Your task to perform on an android device: read, delete, or share a saved page in the chrome app Image 0: 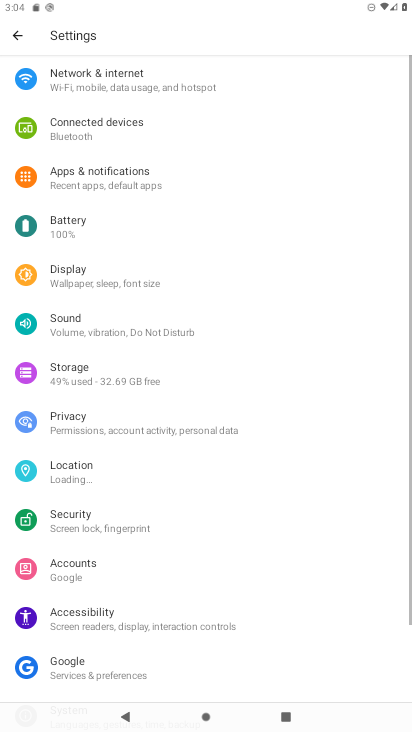
Step 0: press home button
Your task to perform on an android device: read, delete, or share a saved page in the chrome app Image 1: 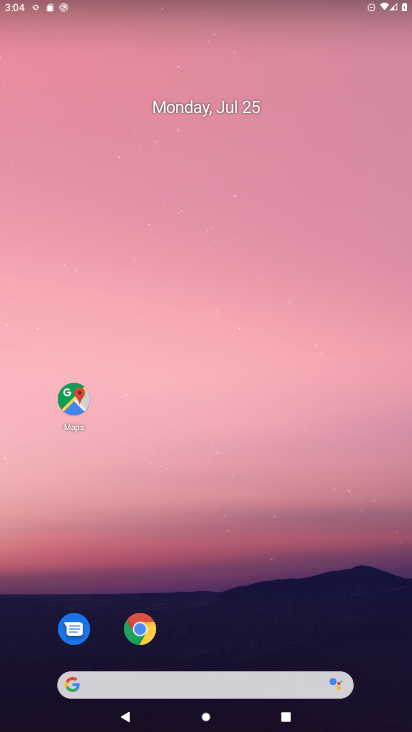
Step 1: click (140, 618)
Your task to perform on an android device: read, delete, or share a saved page in the chrome app Image 2: 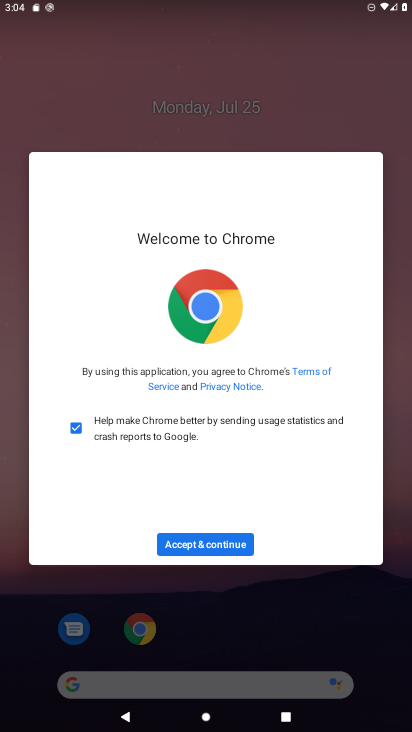
Step 2: click (190, 550)
Your task to perform on an android device: read, delete, or share a saved page in the chrome app Image 3: 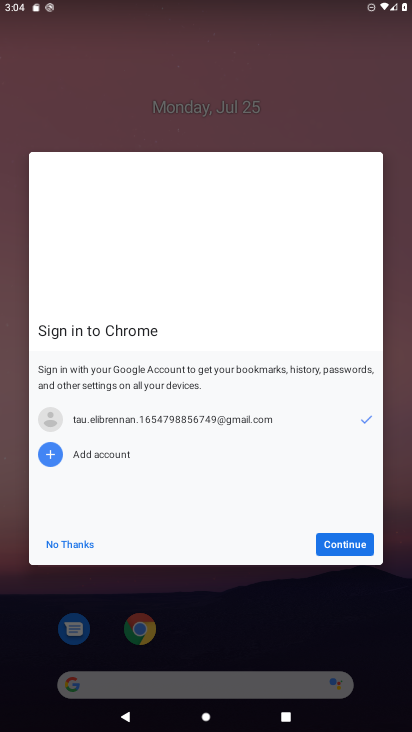
Step 3: click (331, 540)
Your task to perform on an android device: read, delete, or share a saved page in the chrome app Image 4: 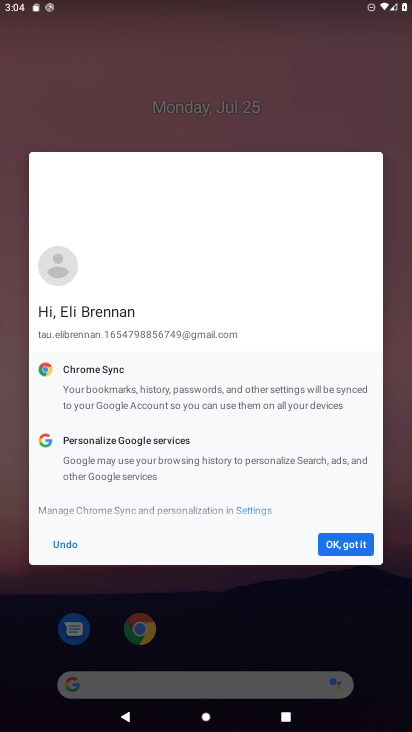
Step 4: click (331, 540)
Your task to perform on an android device: read, delete, or share a saved page in the chrome app Image 5: 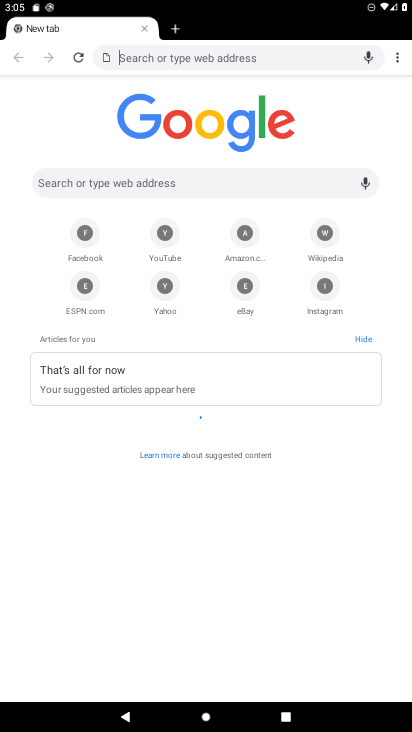
Step 5: click (397, 54)
Your task to perform on an android device: read, delete, or share a saved page in the chrome app Image 6: 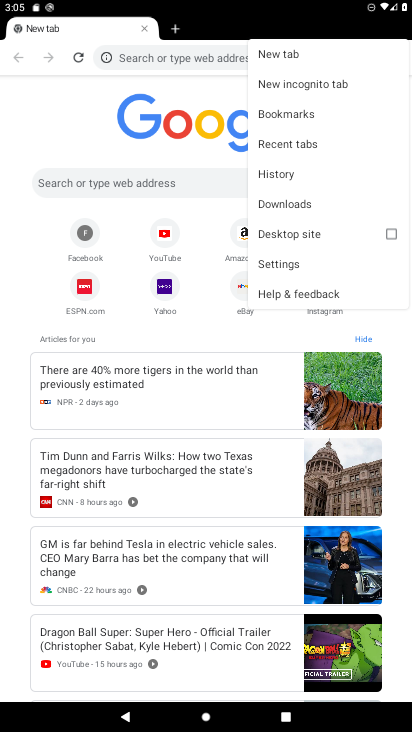
Step 6: click (290, 204)
Your task to perform on an android device: read, delete, or share a saved page in the chrome app Image 7: 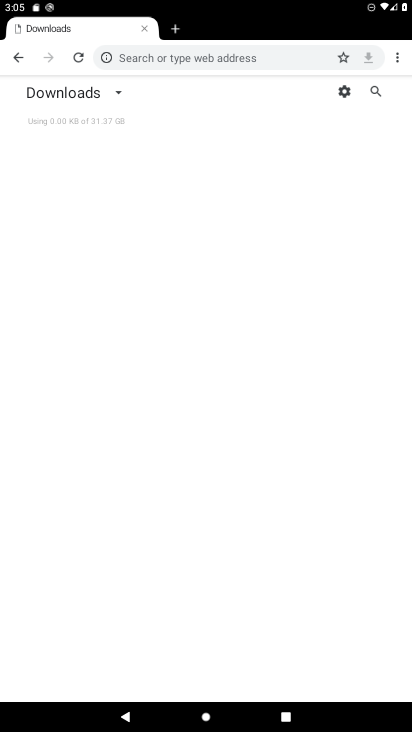
Step 7: click (103, 89)
Your task to perform on an android device: read, delete, or share a saved page in the chrome app Image 8: 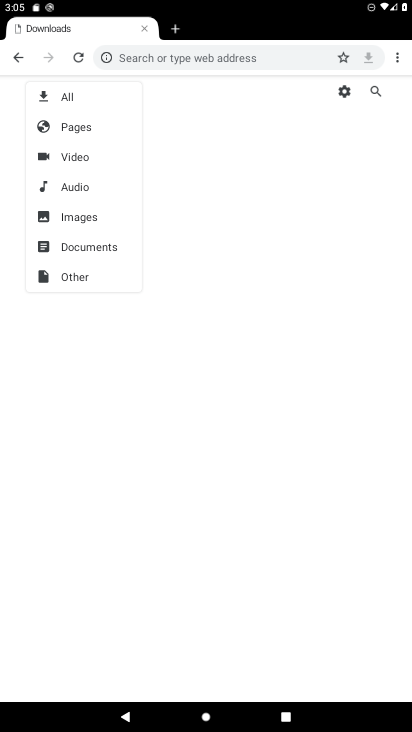
Step 8: click (77, 124)
Your task to perform on an android device: read, delete, or share a saved page in the chrome app Image 9: 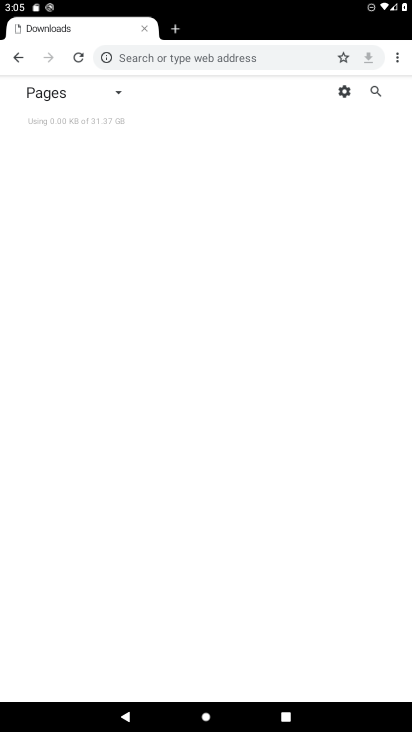
Step 9: task complete